Your task to perform on an android device: Check the weather Image 0: 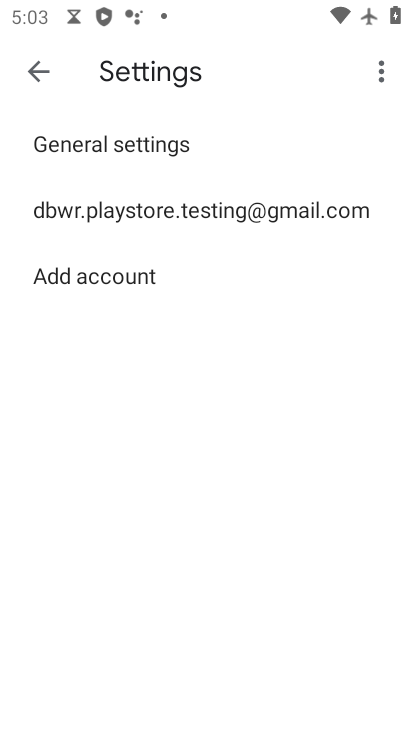
Step 0: click (28, 77)
Your task to perform on an android device: Check the weather Image 1: 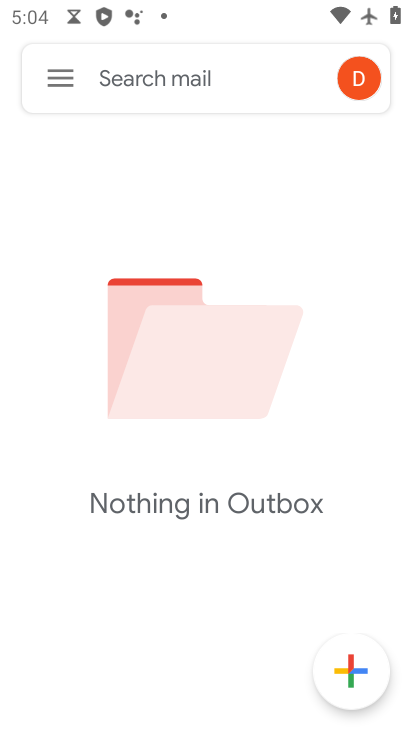
Step 1: press back button
Your task to perform on an android device: Check the weather Image 2: 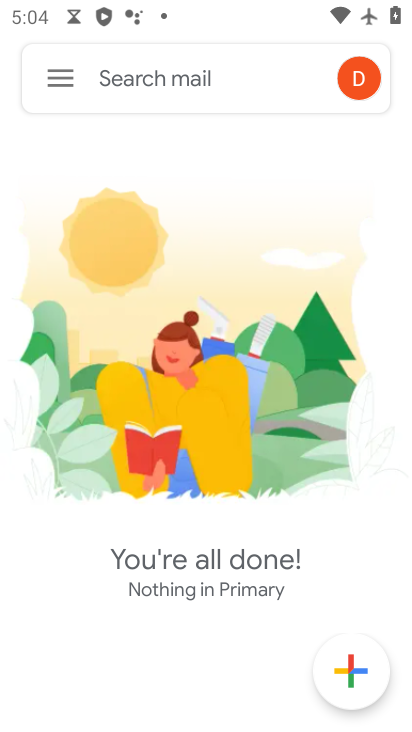
Step 2: press home button
Your task to perform on an android device: Check the weather Image 3: 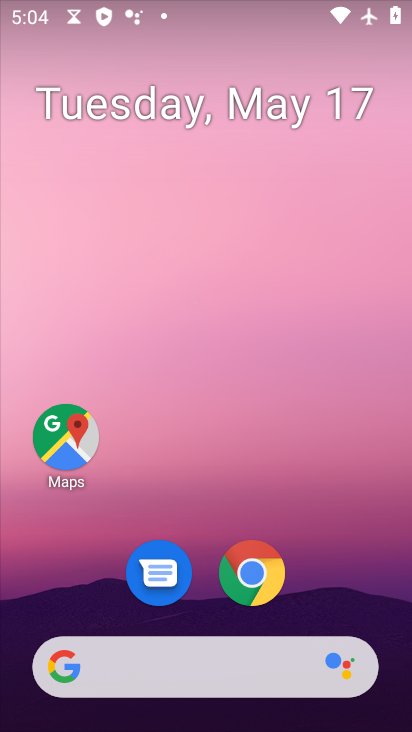
Step 3: drag from (103, 226) to (380, 306)
Your task to perform on an android device: Check the weather Image 4: 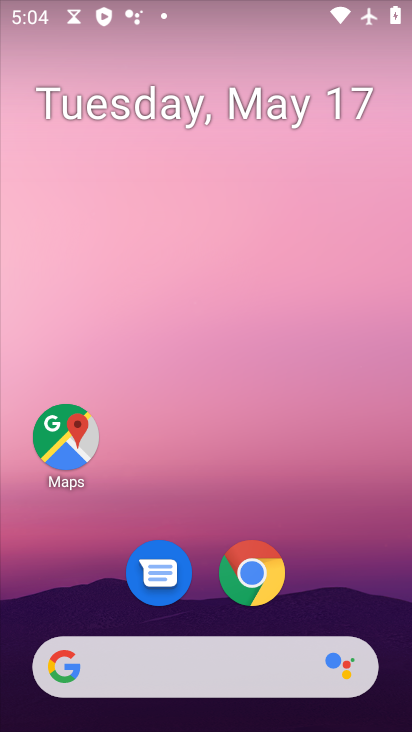
Step 4: drag from (6, 165) to (409, 346)
Your task to perform on an android device: Check the weather Image 5: 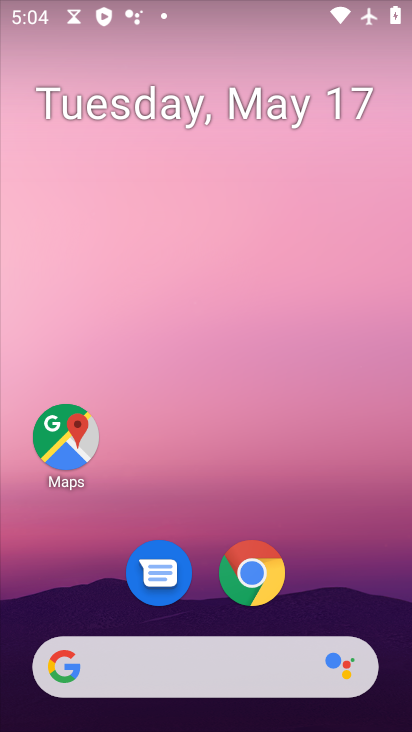
Step 5: drag from (0, 197) to (401, 355)
Your task to perform on an android device: Check the weather Image 6: 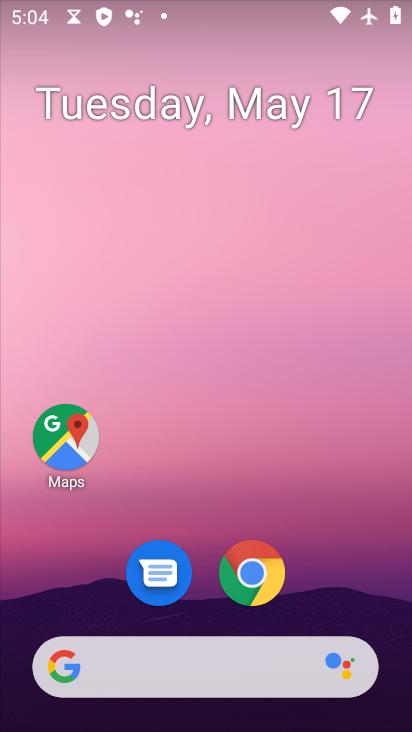
Step 6: drag from (2, 112) to (295, 295)
Your task to perform on an android device: Check the weather Image 7: 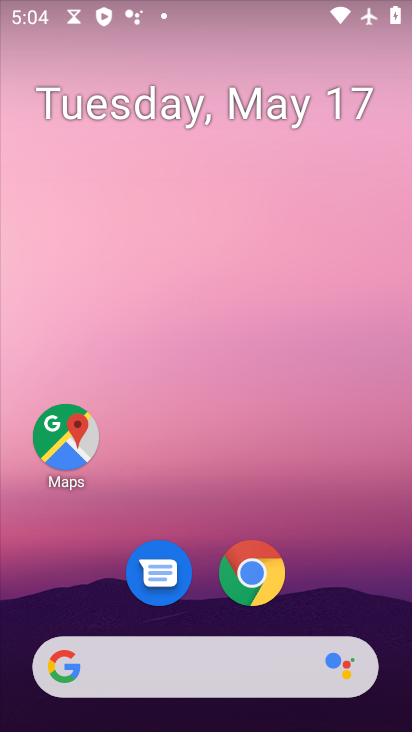
Step 7: drag from (10, 230) to (377, 354)
Your task to perform on an android device: Check the weather Image 8: 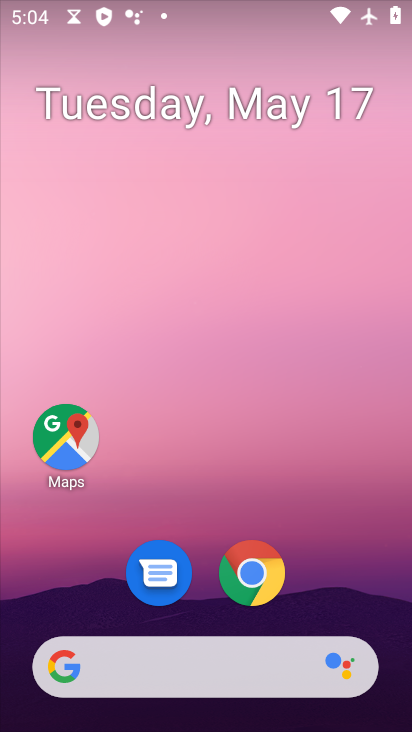
Step 8: drag from (1, 218) to (403, 288)
Your task to perform on an android device: Check the weather Image 9: 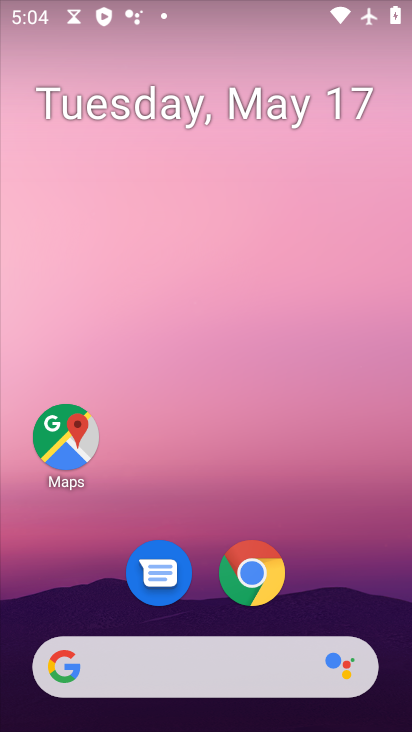
Step 9: drag from (73, 255) to (386, 324)
Your task to perform on an android device: Check the weather Image 10: 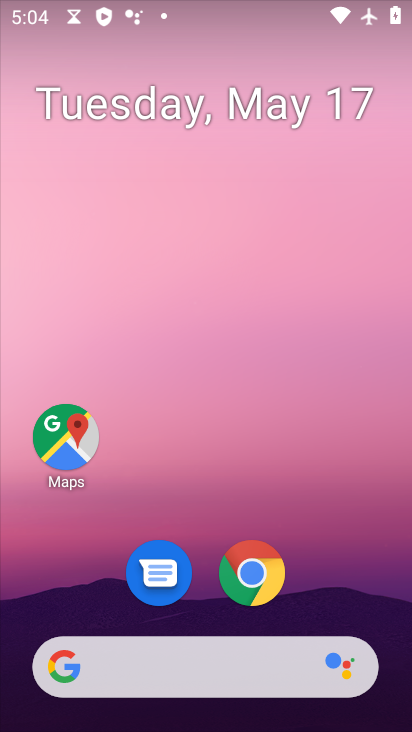
Step 10: drag from (216, 326) to (365, 387)
Your task to perform on an android device: Check the weather Image 11: 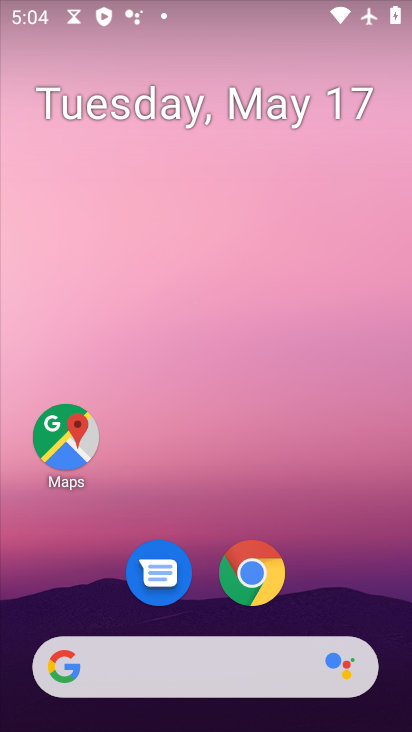
Step 11: drag from (251, 297) to (388, 389)
Your task to perform on an android device: Check the weather Image 12: 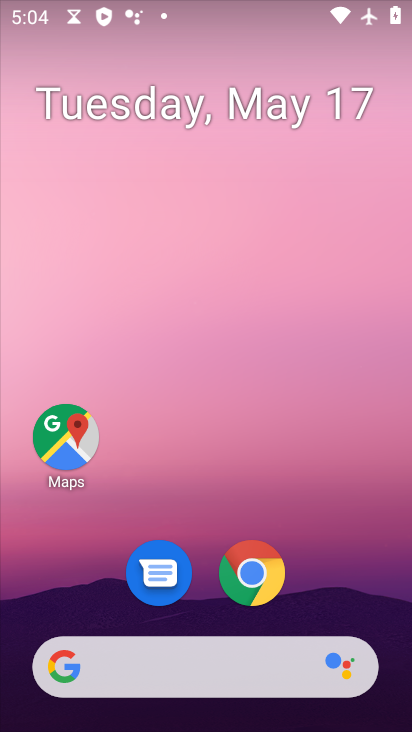
Step 12: drag from (8, 241) to (411, 428)
Your task to perform on an android device: Check the weather Image 13: 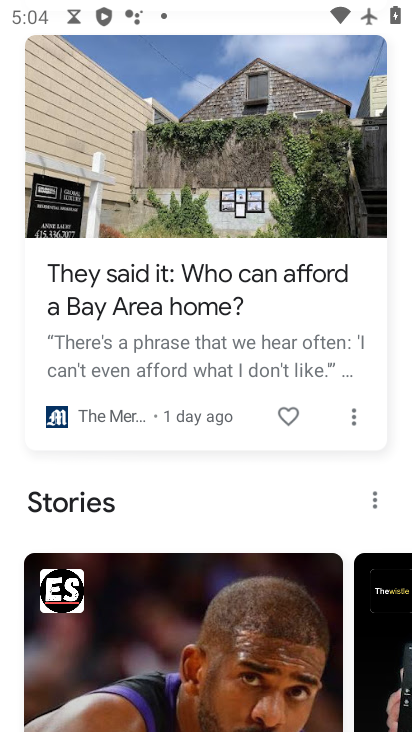
Step 13: drag from (239, 249) to (310, 515)
Your task to perform on an android device: Check the weather Image 14: 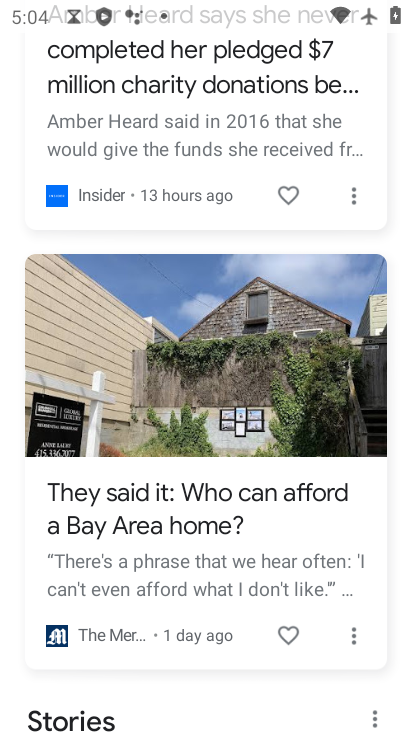
Step 14: drag from (165, 139) to (220, 525)
Your task to perform on an android device: Check the weather Image 15: 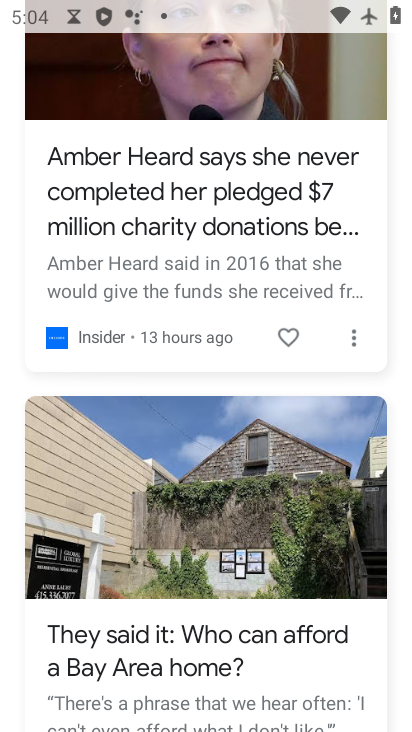
Step 15: drag from (170, 171) to (217, 491)
Your task to perform on an android device: Check the weather Image 16: 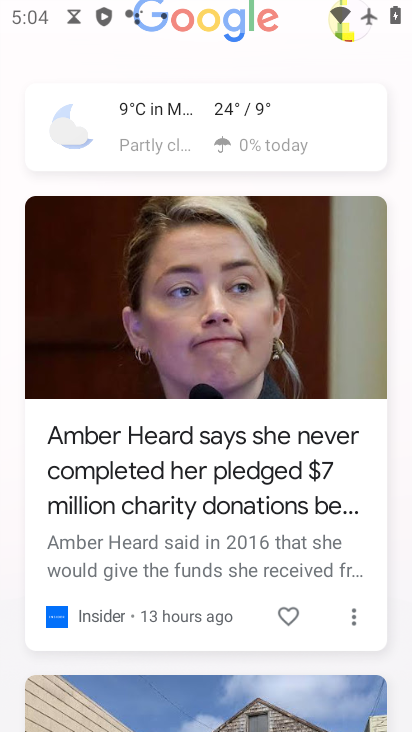
Step 16: drag from (145, 160) to (210, 636)
Your task to perform on an android device: Check the weather Image 17: 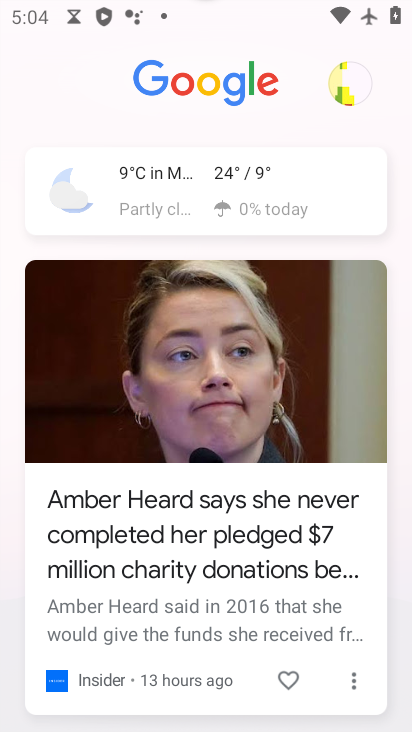
Step 17: click (170, 125)
Your task to perform on an android device: Check the weather Image 18: 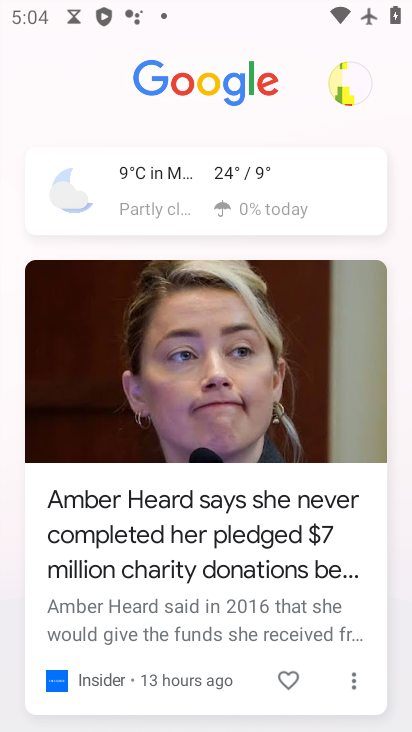
Step 18: click (161, 171)
Your task to perform on an android device: Check the weather Image 19: 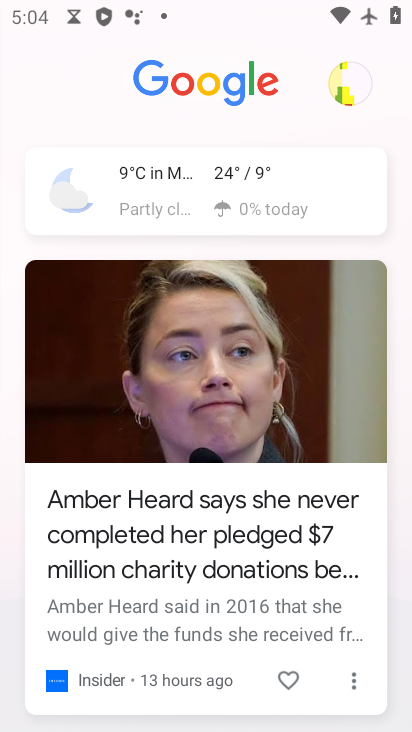
Step 19: click (161, 171)
Your task to perform on an android device: Check the weather Image 20: 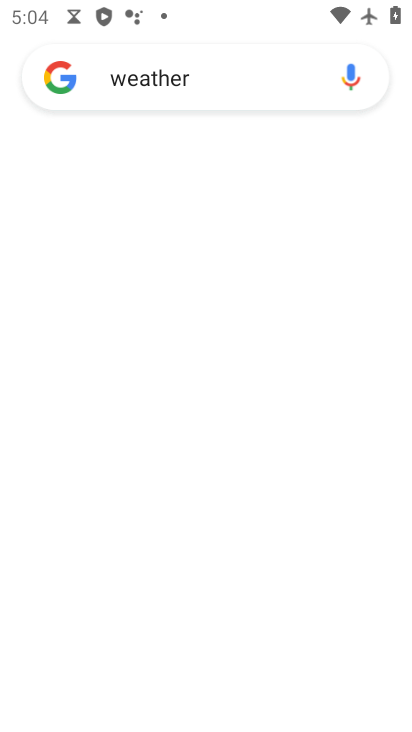
Step 20: click (162, 173)
Your task to perform on an android device: Check the weather Image 21: 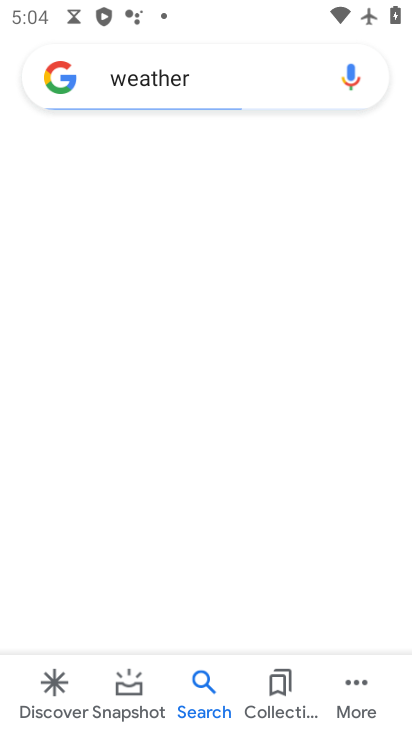
Step 21: click (162, 173)
Your task to perform on an android device: Check the weather Image 22: 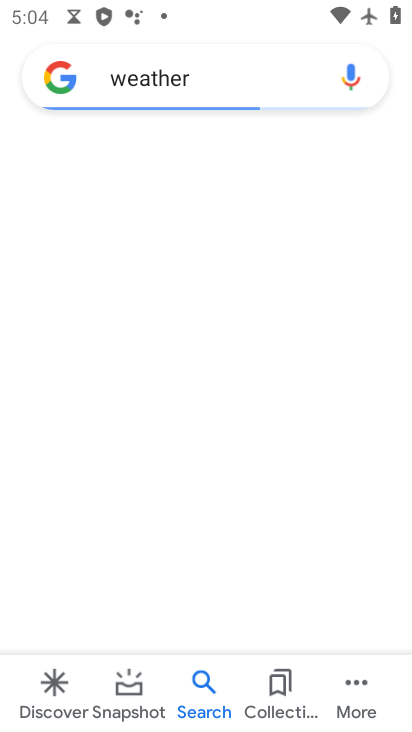
Step 22: click (162, 173)
Your task to perform on an android device: Check the weather Image 23: 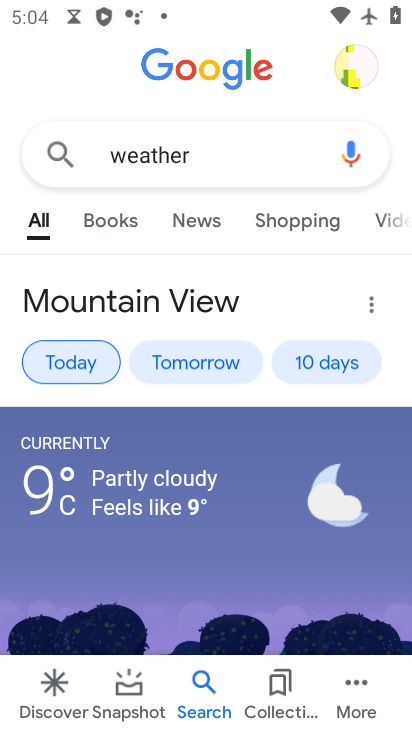
Step 23: task complete